Your task to perform on an android device: Go to network settings Image 0: 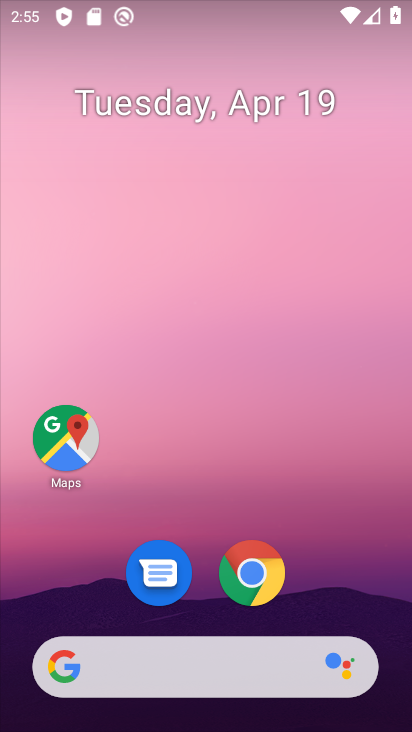
Step 0: drag from (323, 605) to (326, 172)
Your task to perform on an android device: Go to network settings Image 1: 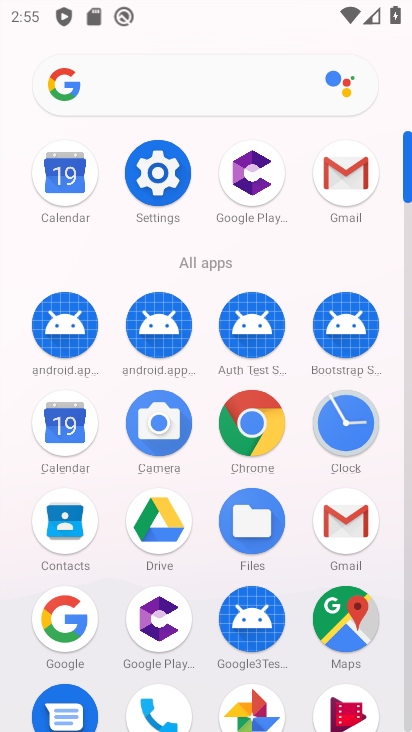
Step 1: drag from (302, 587) to (334, 252)
Your task to perform on an android device: Go to network settings Image 2: 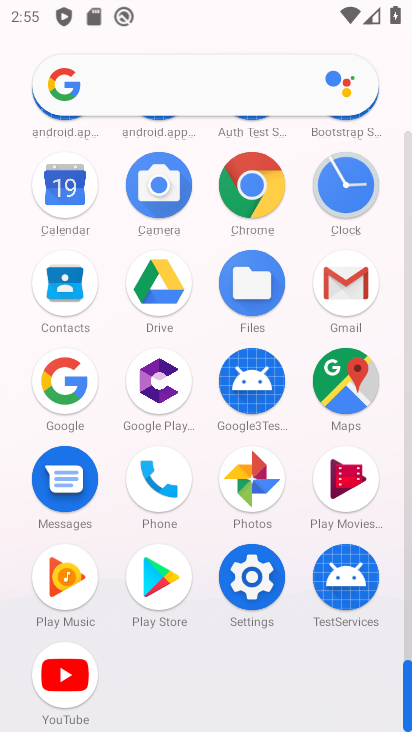
Step 2: click (256, 596)
Your task to perform on an android device: Go to network settings Image 3: 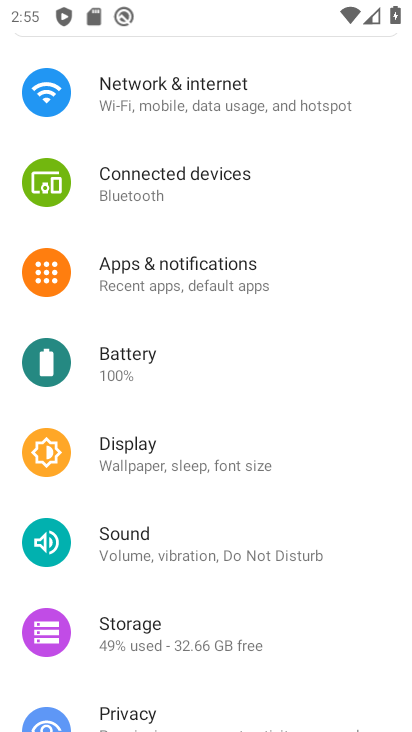
Step 3: click (231, 118)
Your task to perform on an android device: Go to network settings Image 4: 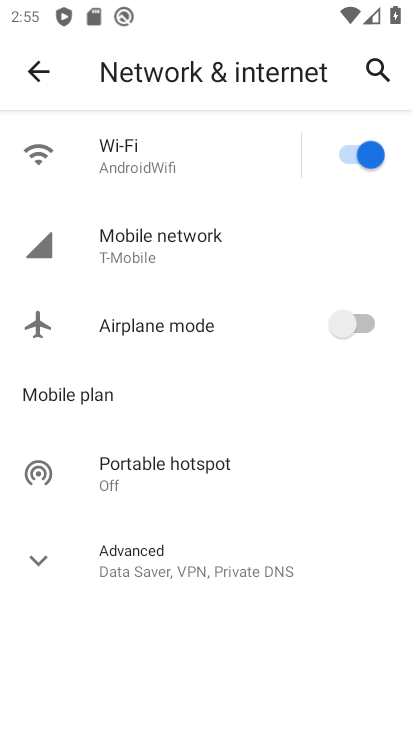
Step 4: task complete